Your task to perform on an android device: What's the news in Peru? Image 0: 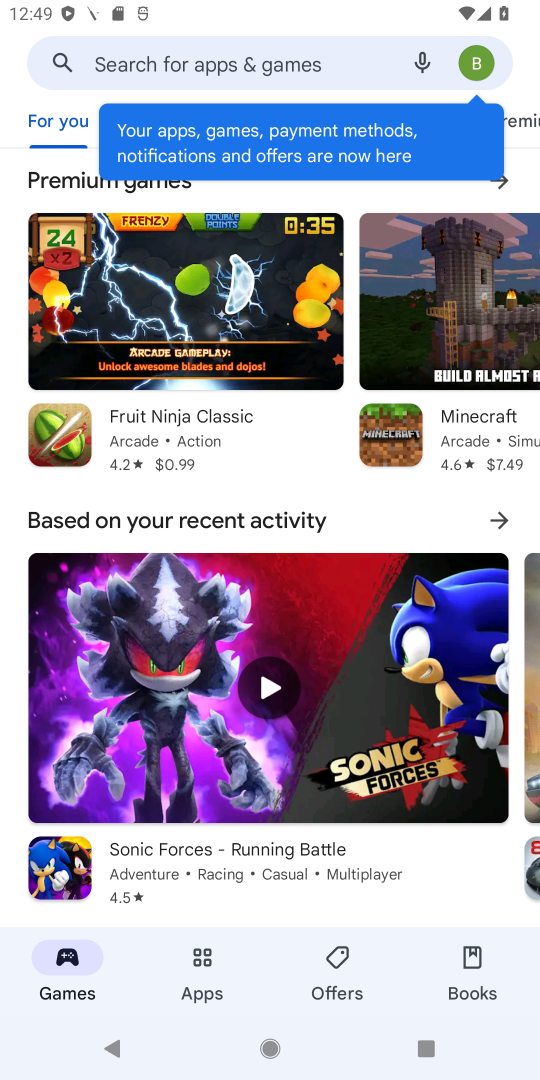
Step 0: press home button
Your task to perform on an android device: What's the news in Peru? Image 1: 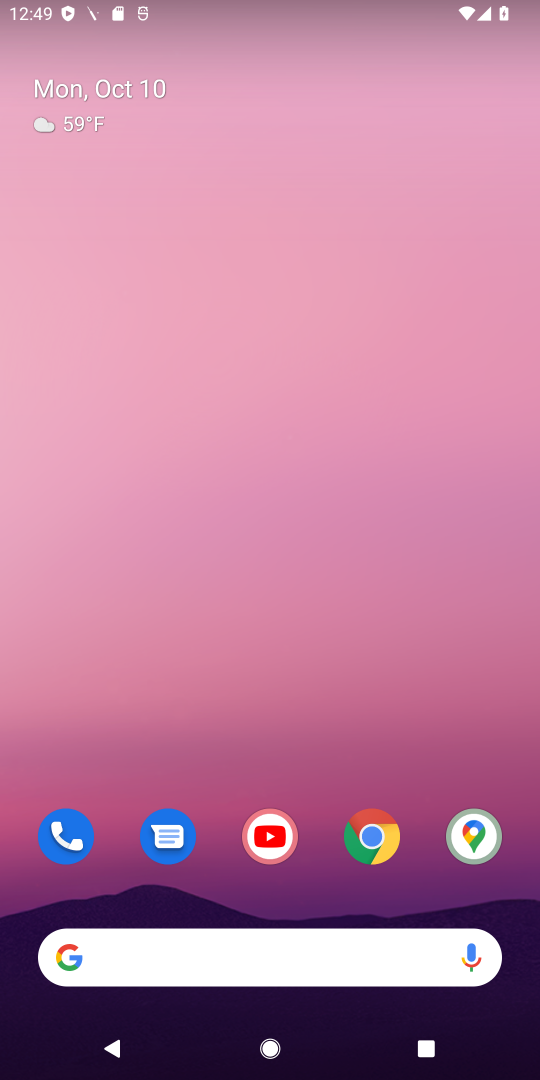
Step 1: click (385, 855)
Your task to perform on an android device: What's the news in Peru? Image 2: 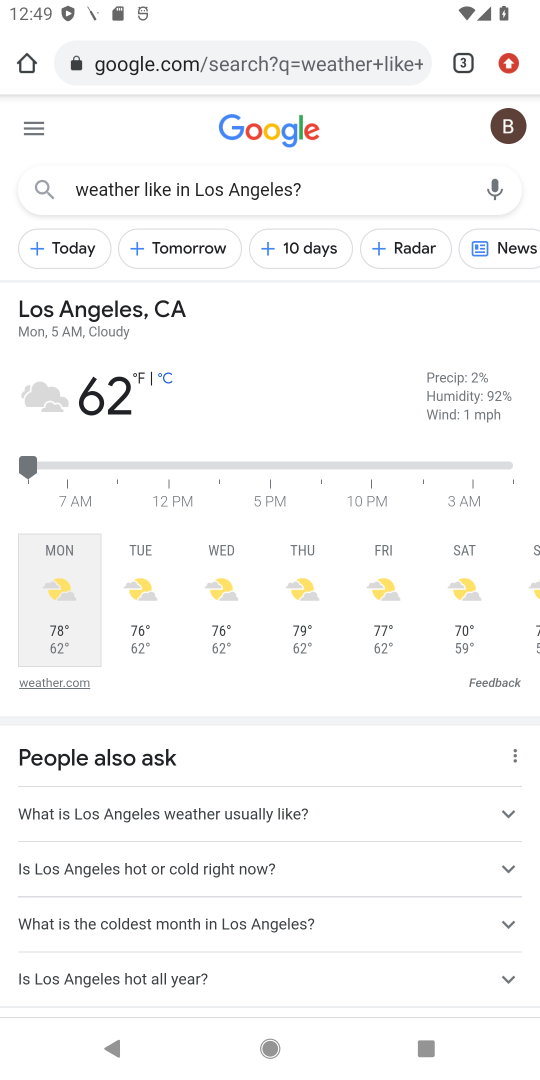
Step 2: click (229, 56)
Your task to perform on an android device: What's the news in Peru? Image 3: 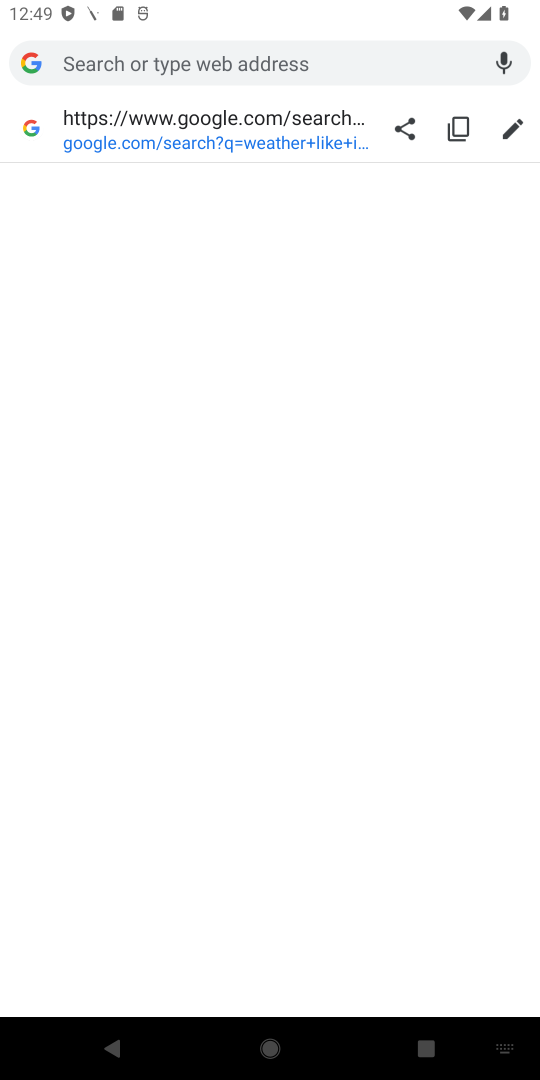
Step 3: type "peru"
Your task to perform on an android device: What's the news in Peru? Image 4: 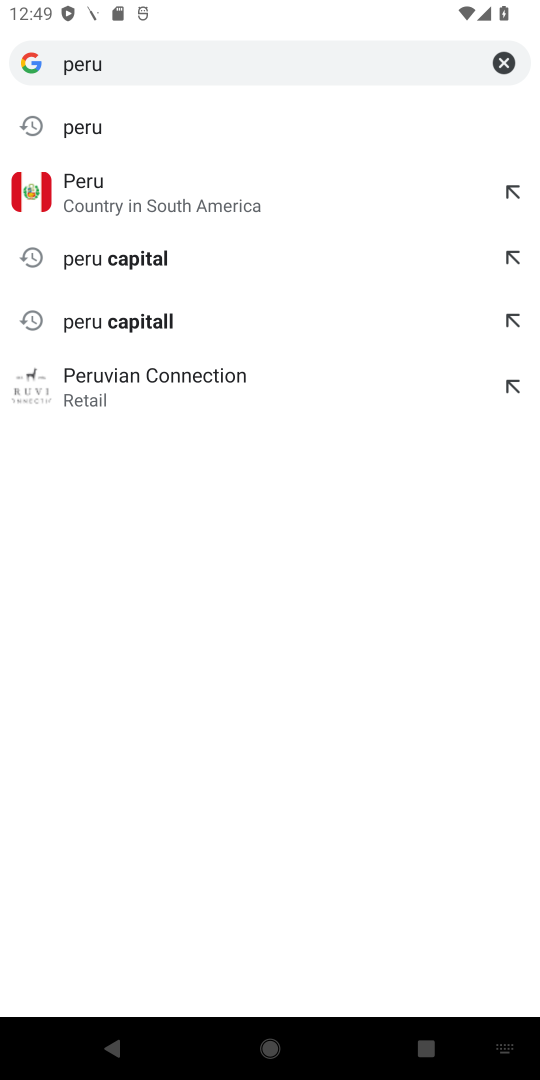
Step 4: click (167, 129)
Your task to perform on an android device: What's the news in Peru? Image 5: 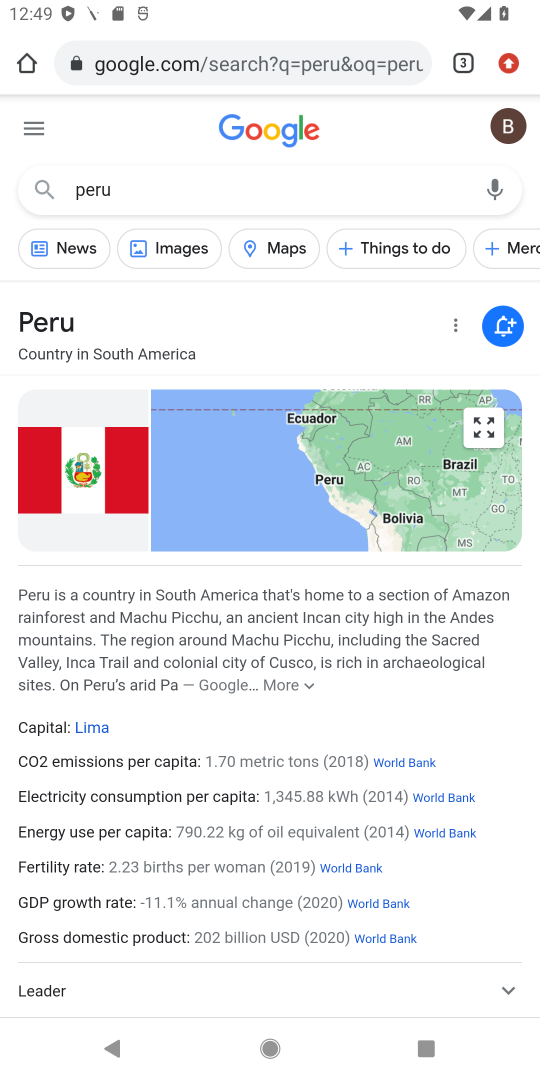
Step 5: click (68, 252)
Your task to perform on an android device: What's the news in Peru? Image 6: 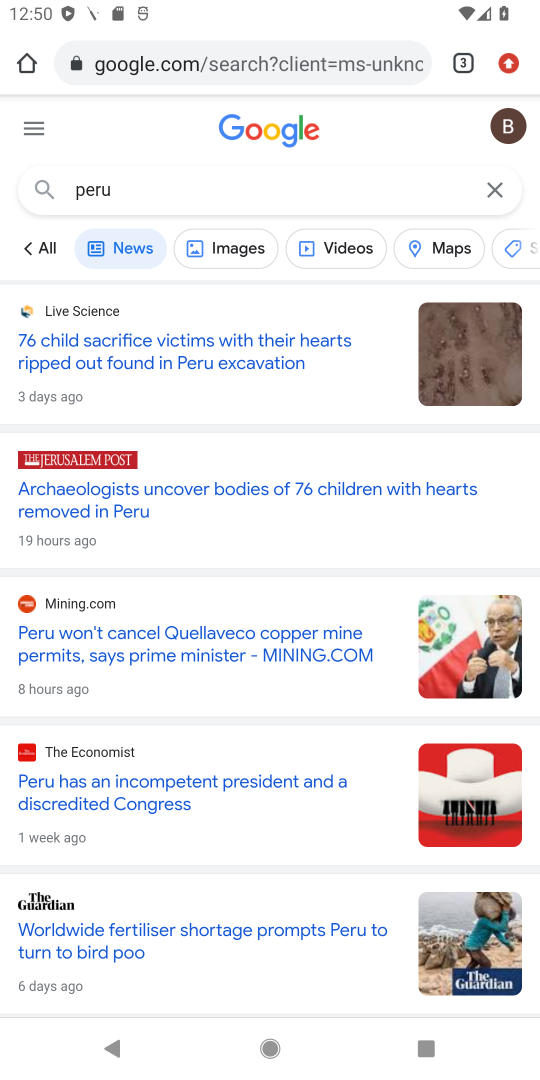
Step 6: task complete